Your task to perform on an android device: Show me productivity apps on the Play Store Image 0: 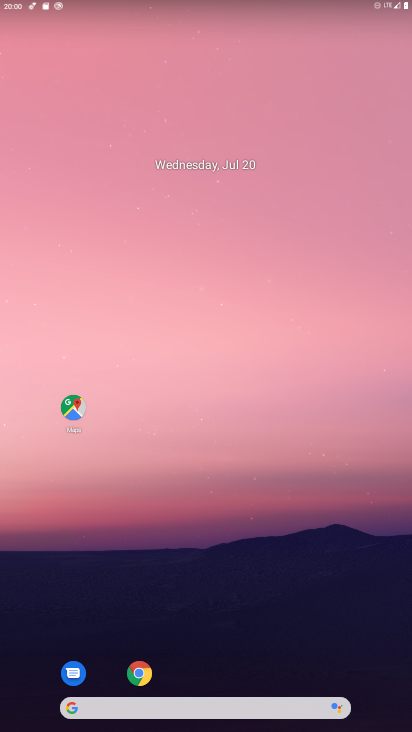
Step 0: drag from (252, 613) to (295, 157)
Your task to perform on an android device: Show me productivity apps on the Play Store Image 1: 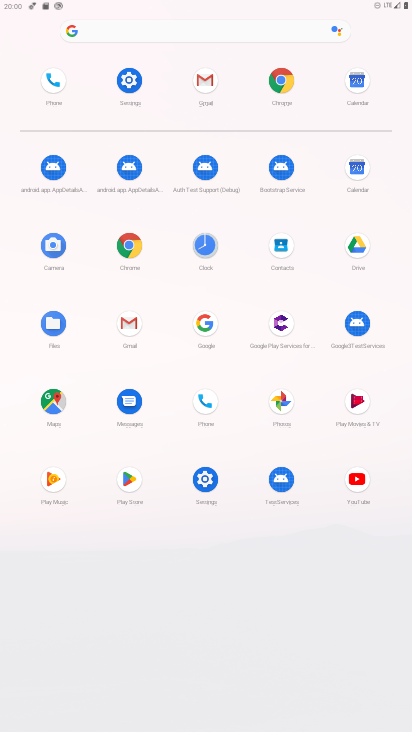
Step 1: click (129, 483)
Your task to perform on an android device: Show me productivity apps on the Play Store Image 2: 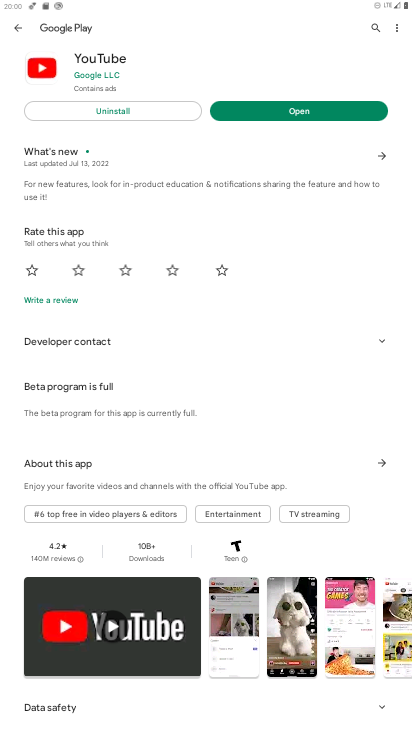
Step 2: click (11, 21)
Your task to perform on an android device: Show me productivity apps on the Play Store Image 3: 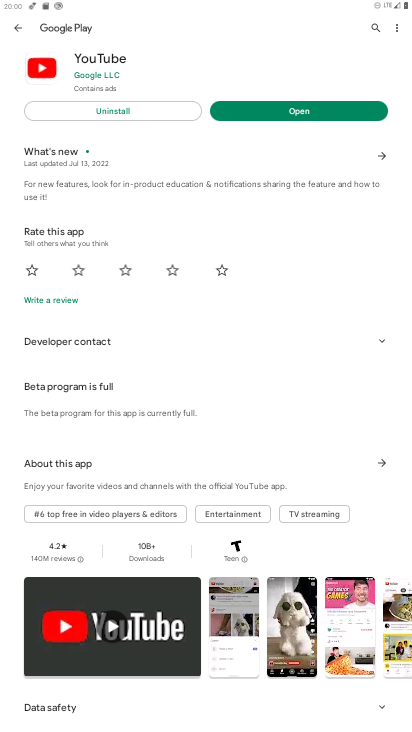
Step 3: click (15, 29)
Your task to perform on an android device: Show me productivity apps on the Play Store Image 4: 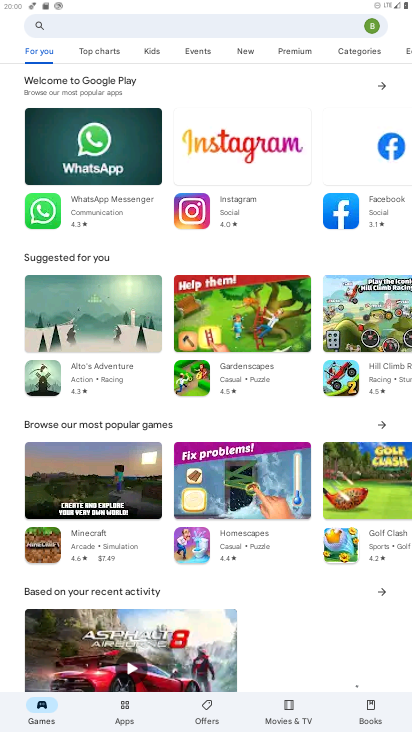
Step 4: click (158, 24)
Your task to perform on an android device: Show me productivity apps on the Play Store Image 5: 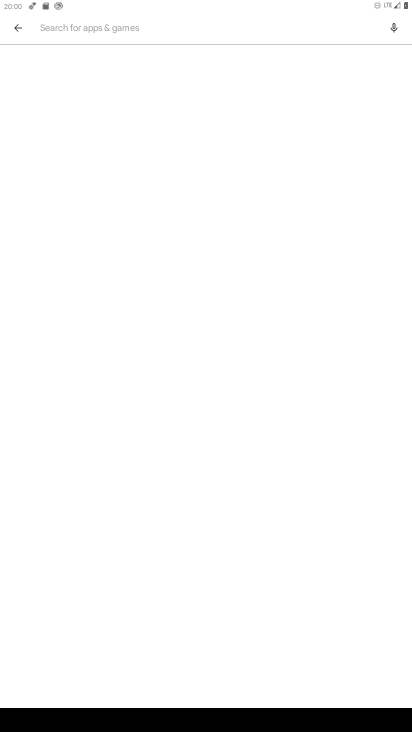
Step 5: type "productivity apps"
Your task to perform on an android device: Show me productivity apps on the Play Store Image 6: 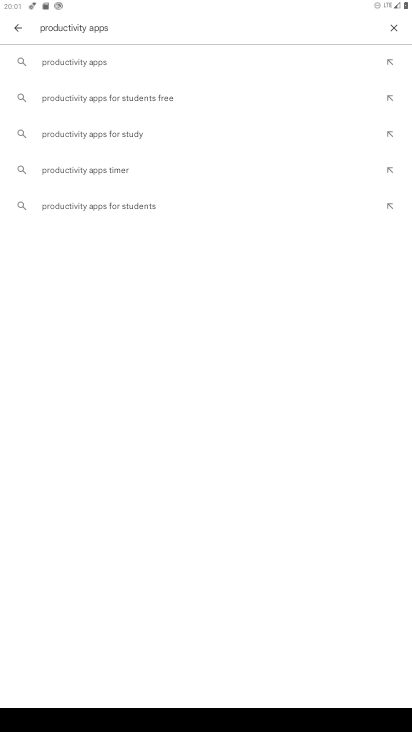
Step 6: click (85, 60)
Your task to perform on an android device: Show me productivity apps on the Play Store Image 7: 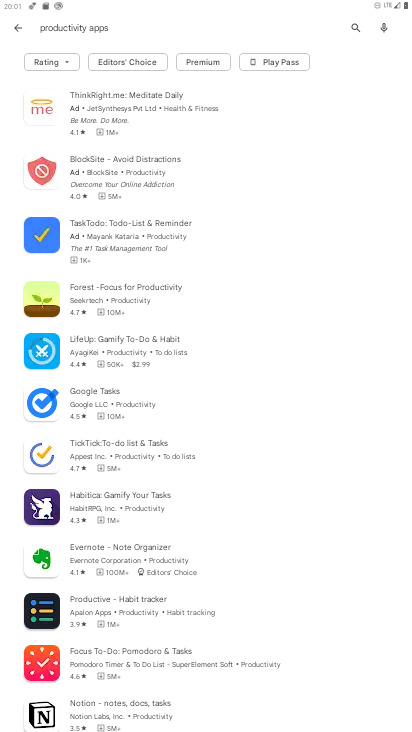
Step 7: task complete